Your task to perform on an android device: open app "Firefox Browser" Image 0: 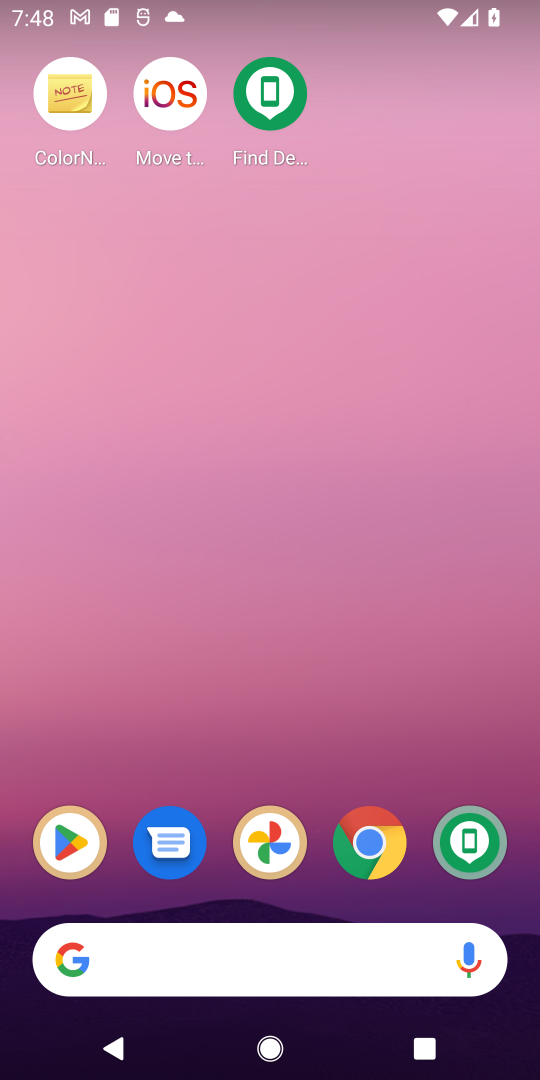
Step 0: click (74, 842)
Your task to perform on an android device: open app "Firefox Browser" Image 1: 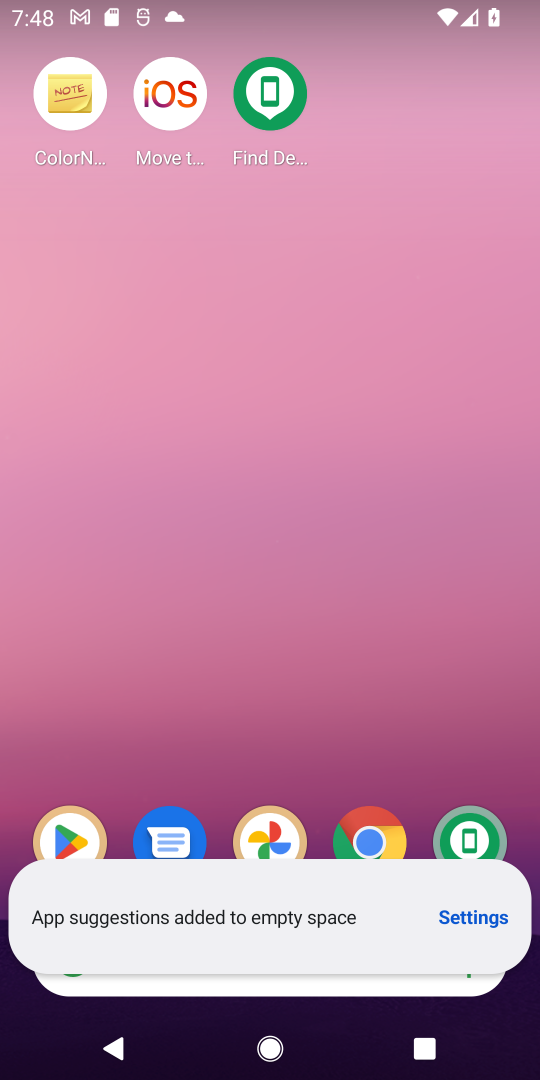
Step 1: click (72, 841)
Your task to perform on an android device: open app "Firefox Browser" Image 2: 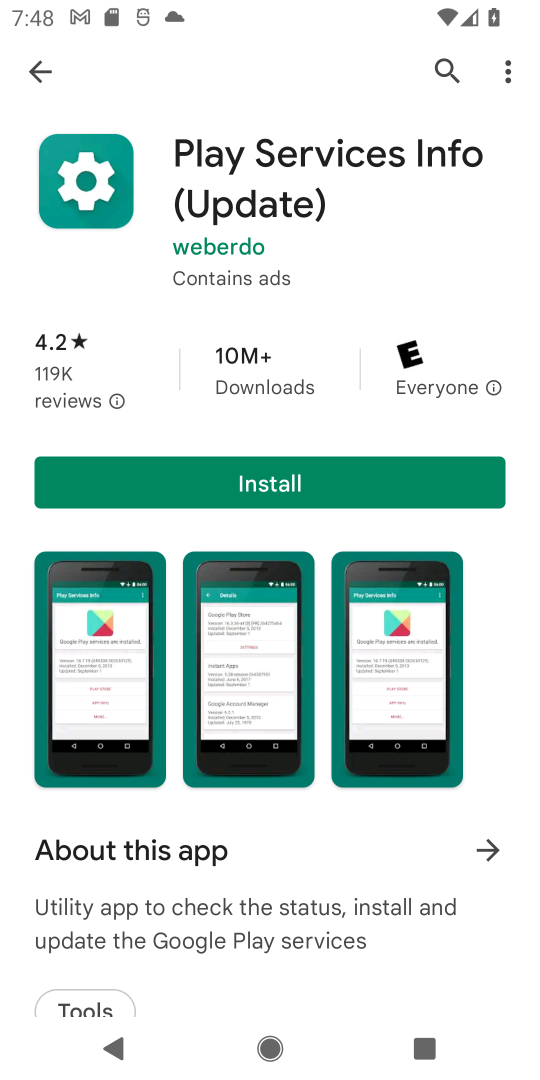
Step 2: click (24, 67)
Your task to perform on an android device: open app "Firefox Browser" Image 3: 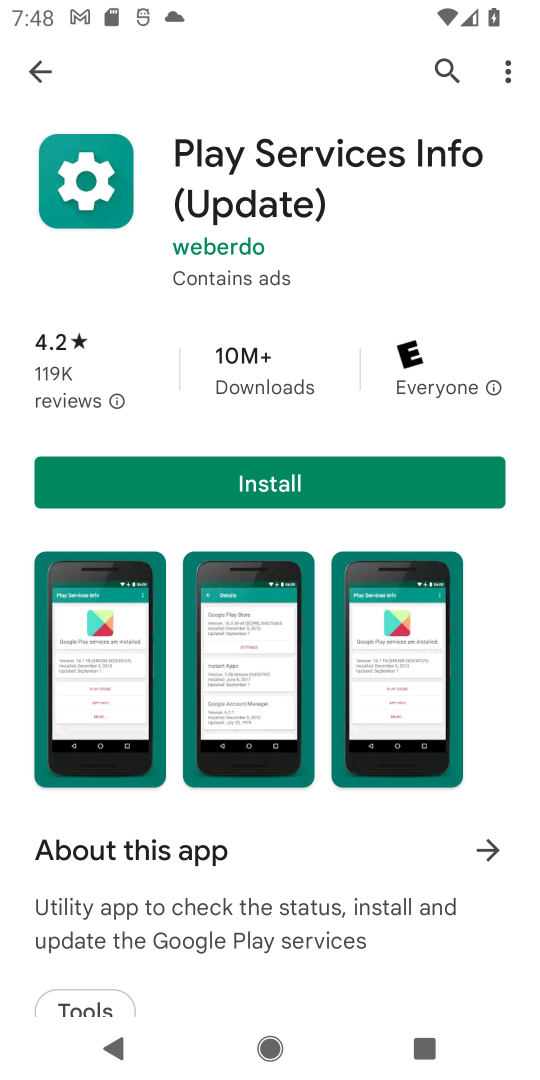
Step 3: click (35, 72)
Your task to perform on an android device: open app "Firefox Browser" Image 4: 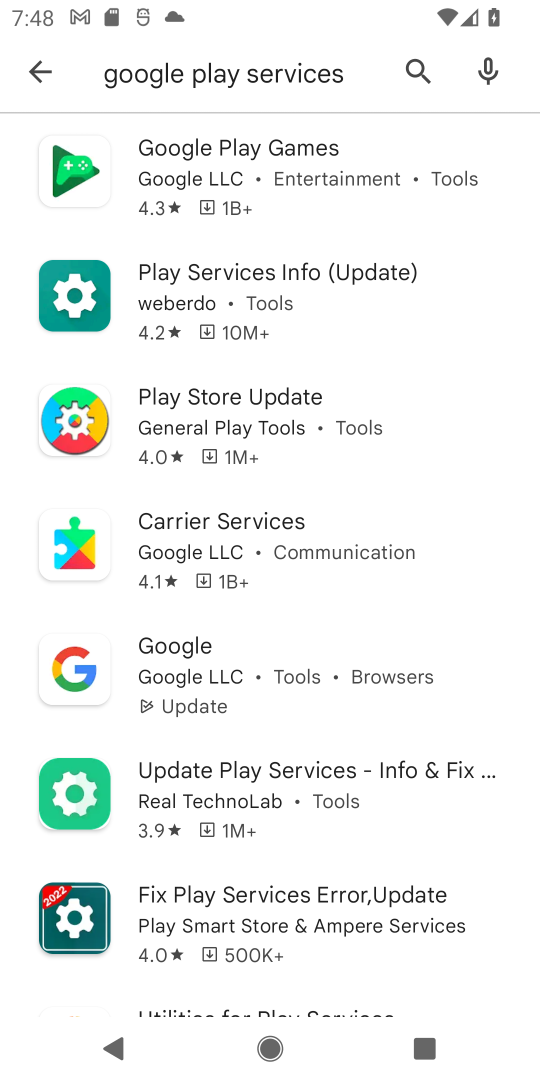
Step 4: click (151, 69)
Your task to perform on an android device: open app "Firefox Browser" Image 5: 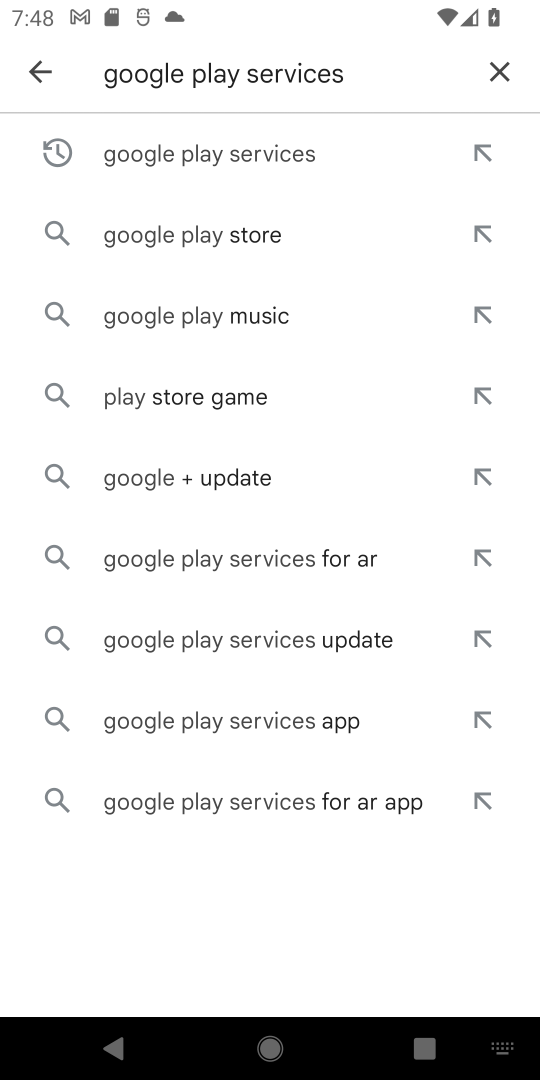
Step 5: click (494, 62)
Your task to perform on an android device: open app "Firefox Browser" Image 6: 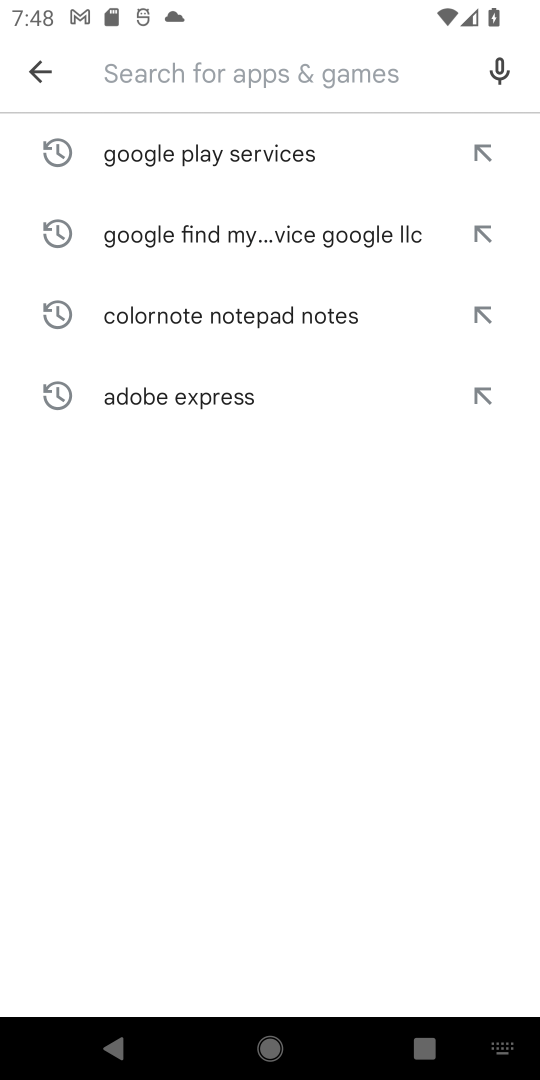
Step 6: type "firefox browser"
Your task to perform on an android device: open app "Firefox Browser" Image 7: 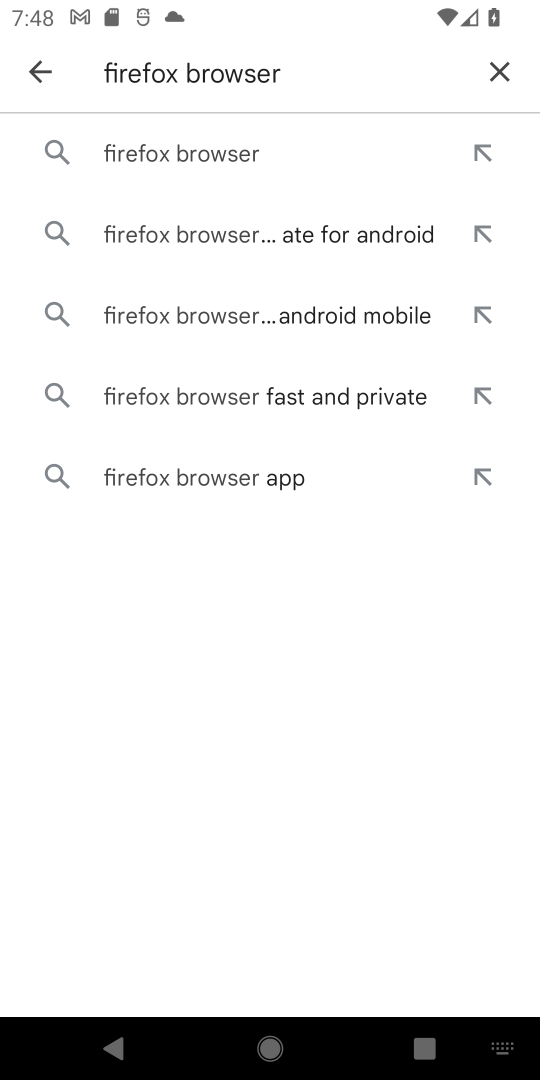
Step 7: click (202, 165)
Your task to perform on an android device: open app "Firefox Browser" Image 8: 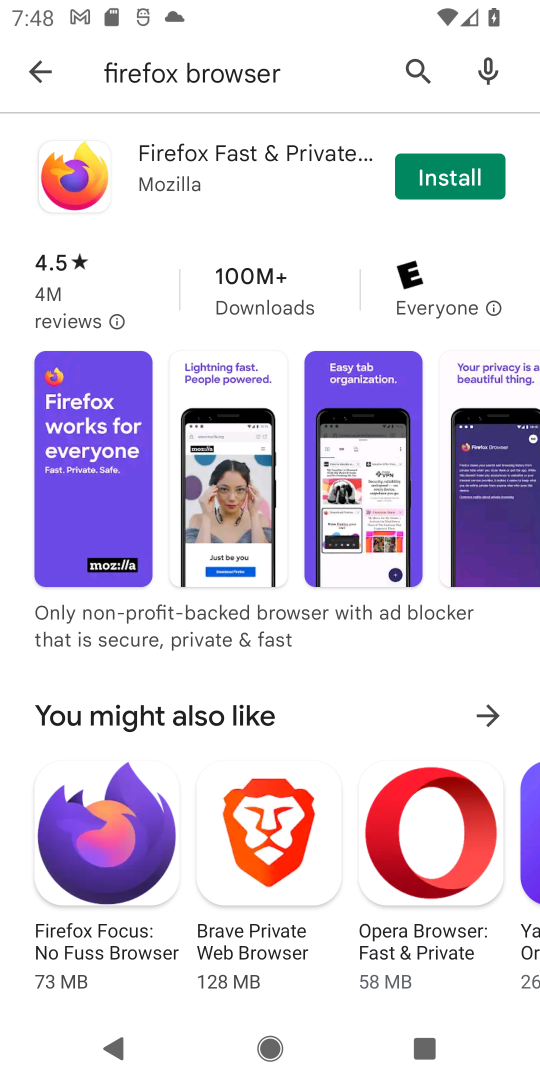
Step 8: task complete